Your task to perform on an android device: add a label to a message in the gmail app Image 0: 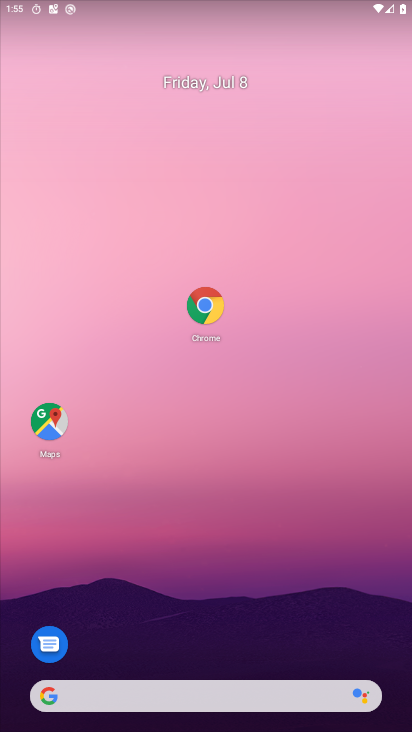
Step 0: drag from (234, 635) to (266, 337)
Your task to perform on an android device: add a label to a message in the gmail app Image 1: 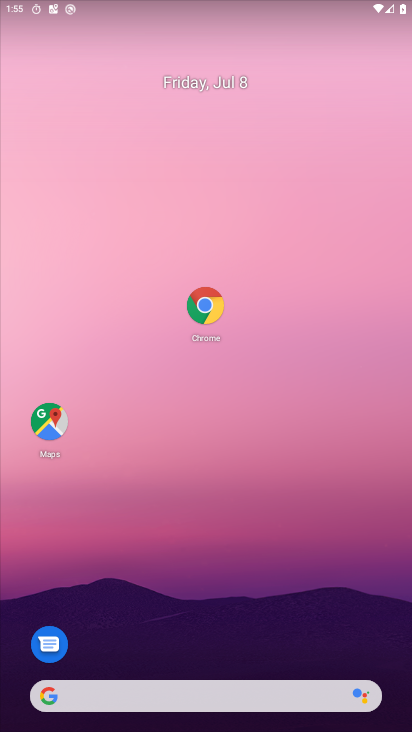
Step 1: drag from (179, 681) to (181, 390)
Your task to perform on an android device: add a label to a message in the gmail app Image 2: 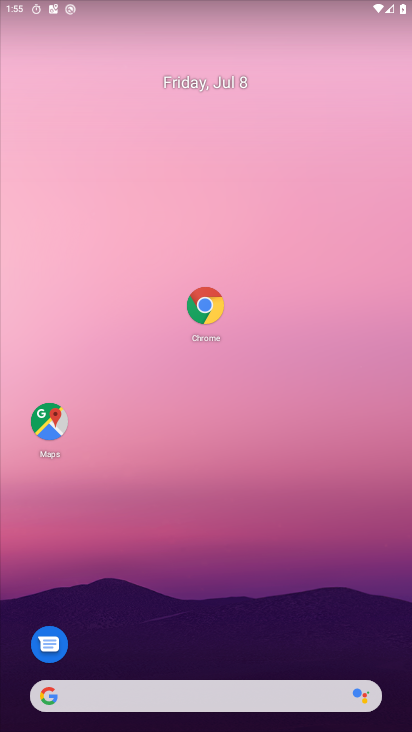
Step 2: drag from (125, 567) to (176, 228)
Your task to perform on an android device: add a label to a message in the gmail app Image 3: 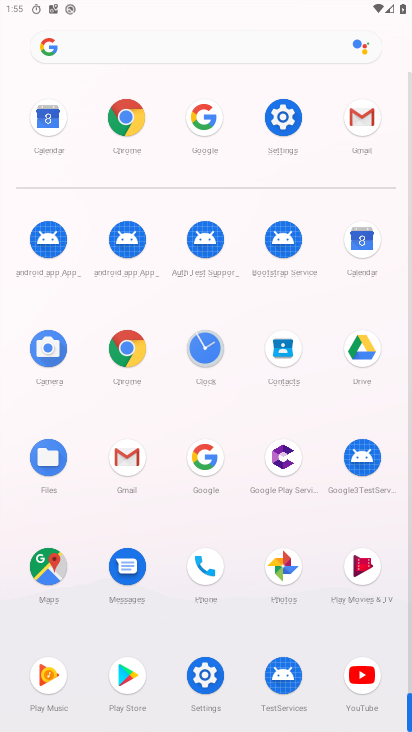
Step 3: click (366, 109)
Your task to perform on an android device: add a label to a message in the gmail app Image 4: 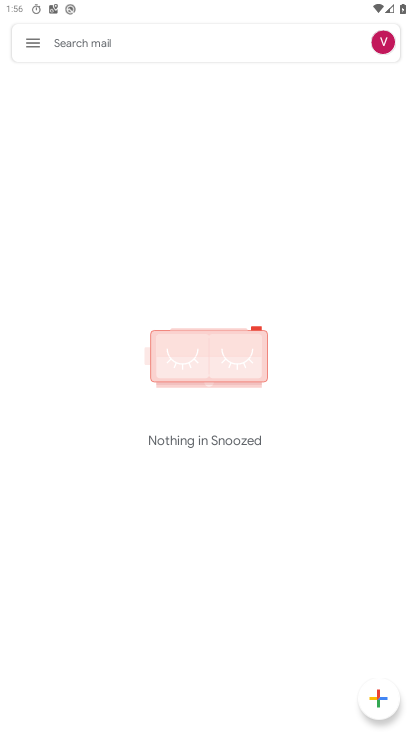
Step 4: task complete